Your task to perform on an android device: Open Chrome and go to settings Image 0: 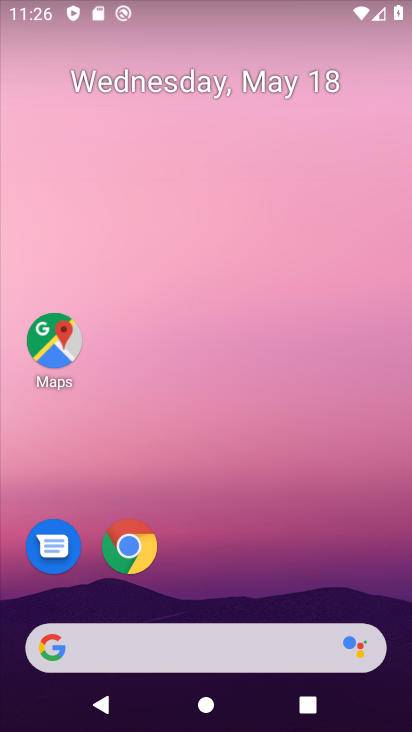
Step 0: click (135, 539)
Your task to perform on an android device: Open Chrome and go to settings Image 1: 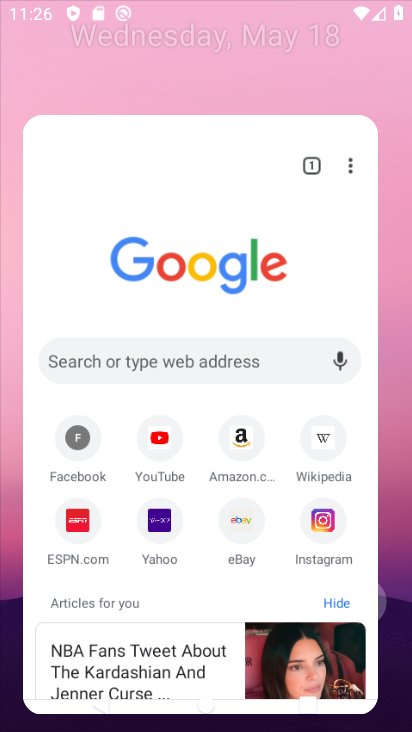
Step 1: click (126, 551)
Your task to perform on an android device: Open Chrome and go to settings Image 2: 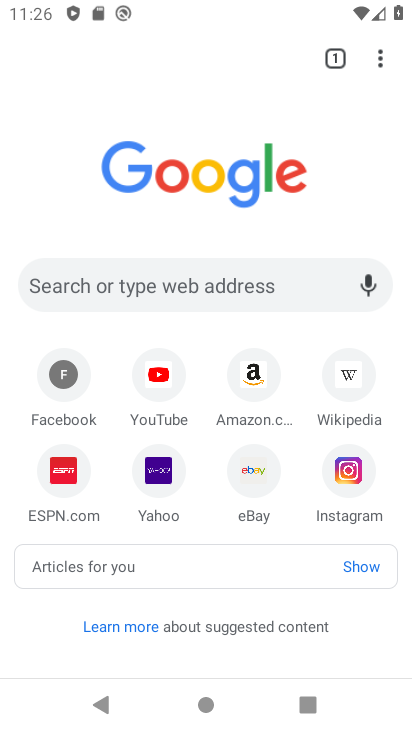
Step 2: click (126, 534)
Your task to perform on an android device: Open Chrome and go to settings Image 3: 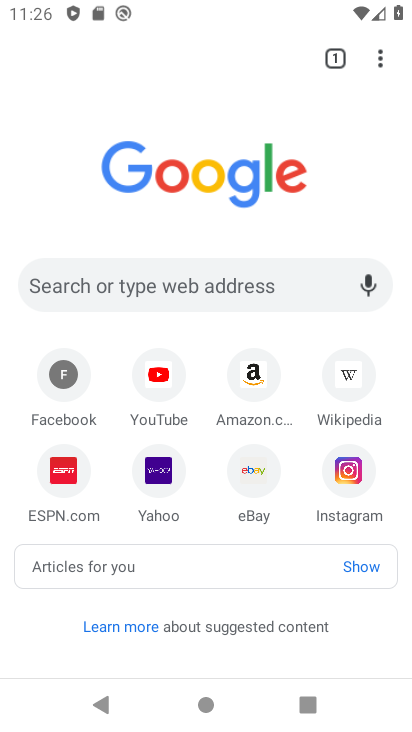
Step 3: click (380, 54)
Your task to perform on an android device: Open Chrome and go to settings Image 4: 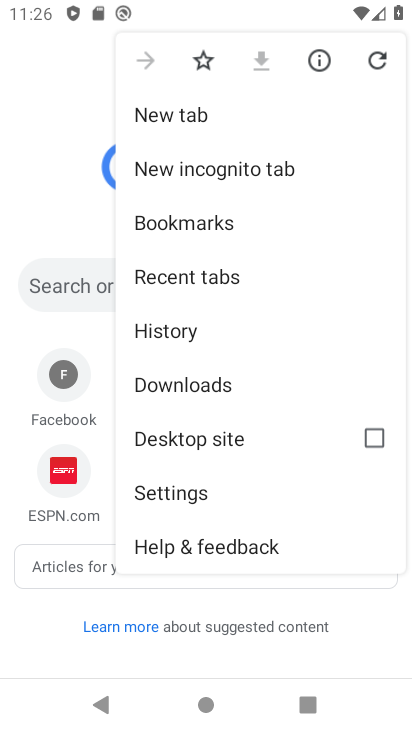
Step 4: click (379, 46)
Your task to perform on an android device: Open Chrome and go to settings Image 5: 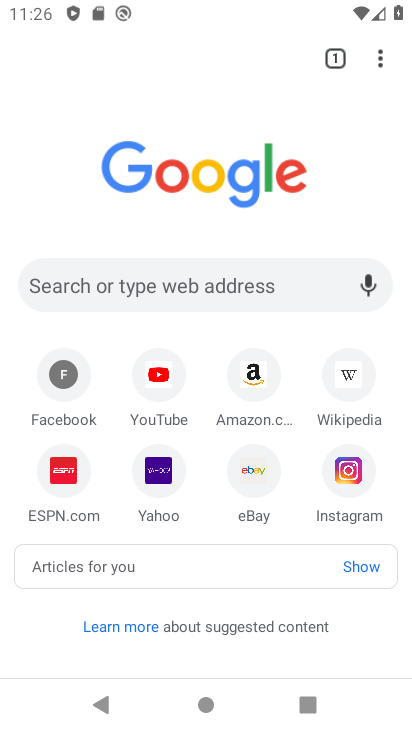
Step 5: click (171, 495)
Your task to perform on an android device: Open Chrome and go to settings Image 6: 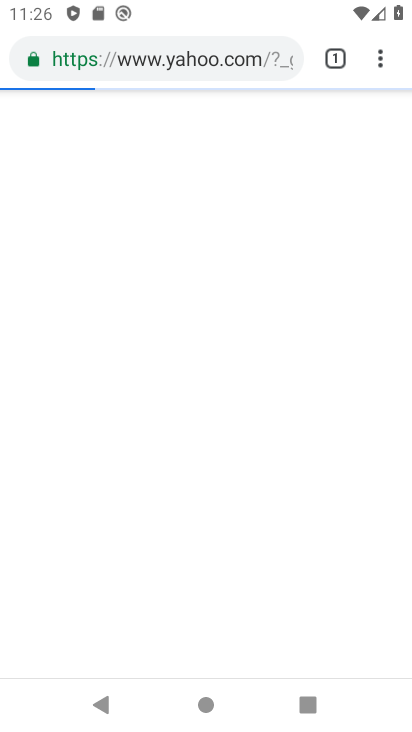
Step 6: click (383, 57)
Your task to perform on an android device: Open Chrome and go to settings Image 7: 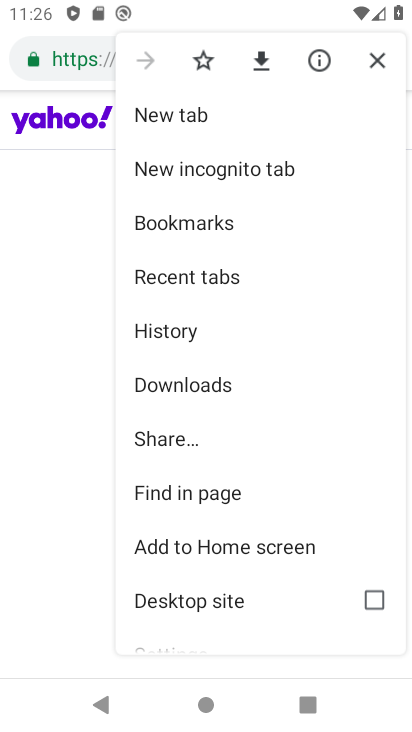
Step 7: drag from (230, 597) to (242, 312)
Your task to perform on an android device: Open Chrome and go to settings Image 8: 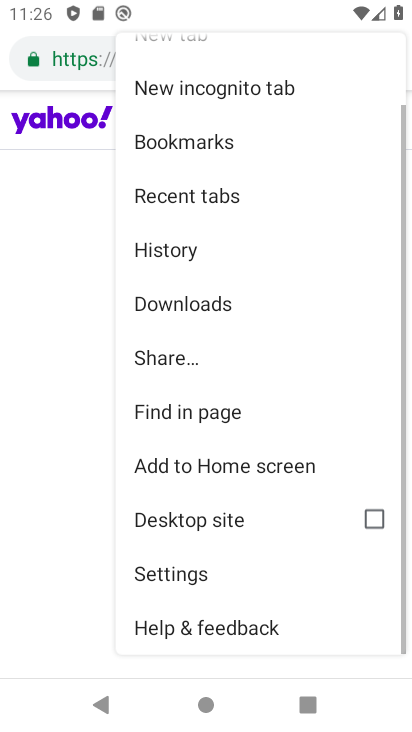
Step 8: click (175, 564)
Your task to perform on an android device: Open Chrome and go to settings Image 9: 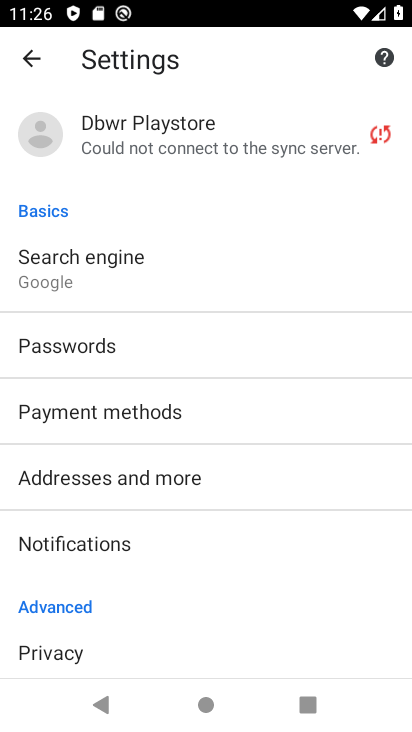
Step 9: task complete